Your task to perform on an android device: set the timer Image 0: 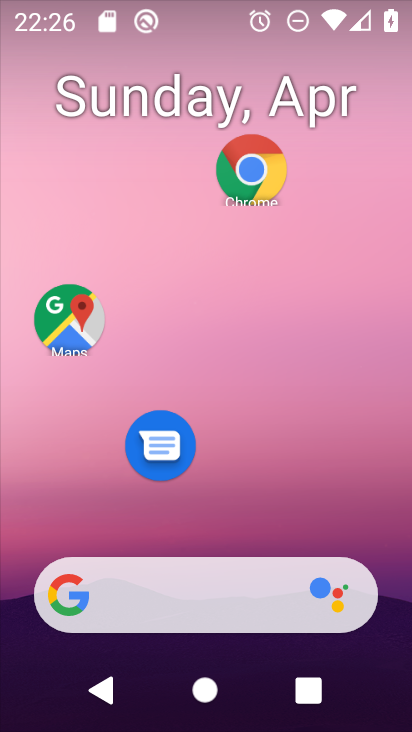
Step 0: drag from (237, 523) to (274, 5)
Your task to perform on an android device: set the timer Image 1: 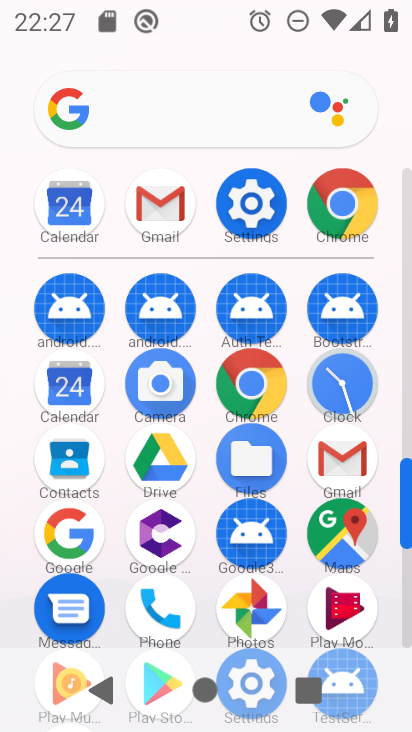
Step 1: click (344, 385)
Your task to perform on an android device: set the timer Image 2: 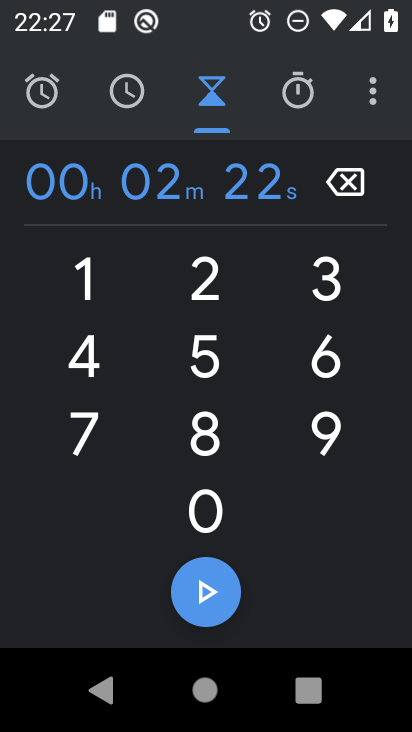
Step 2: click (220, 290)
Your task to perform on an android device: set the timer Image 3: 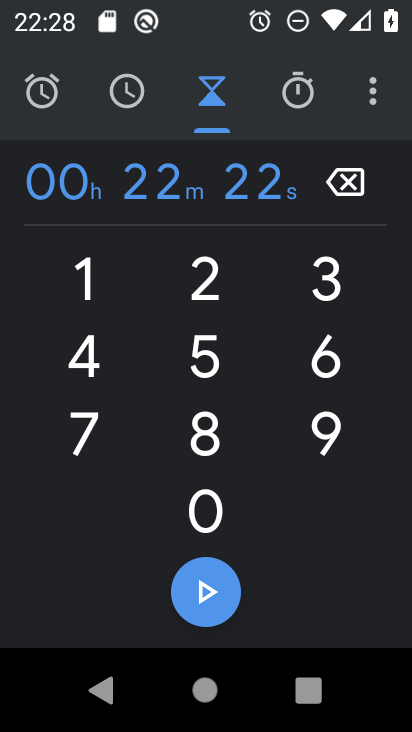
Step 3: task complete